Your task to perform on an android device: Clear all items from cart on bestbuy. Image 0: 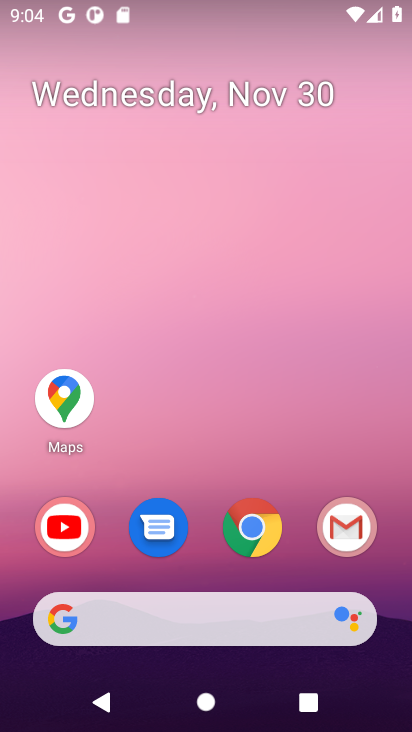
Step 0: click (255, 525)
Your task to perform on an android device: Clear all items from cart on bestbuy. Image 1: 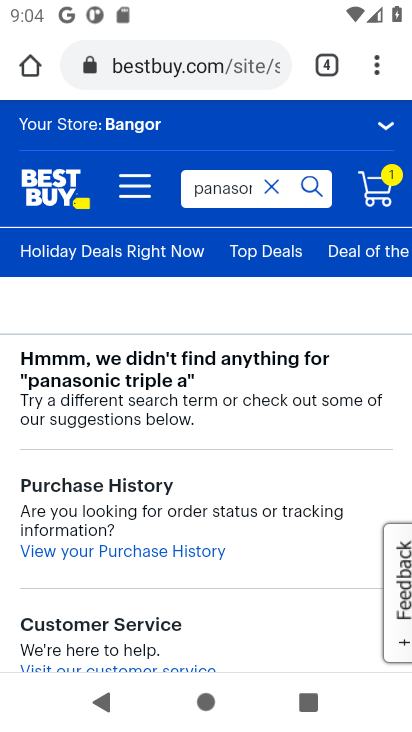
Step 1: click (381, 197)
Your task to perform on an android device: Clear all items from cart on bestbuy. Image 2: 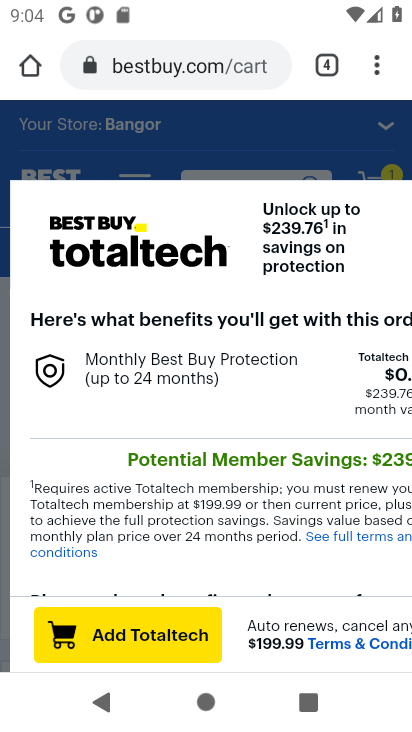
Step 2: click (251, 130)
Your task to perform on an android device: Clear all items from cart on bestbuy. Image 3: 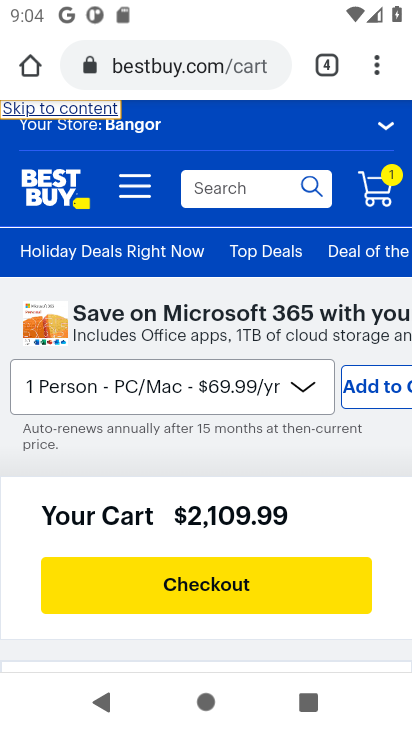
Step 3: drag from (347, 470) to (390, 48)
Your task to perform on an android device: Clear all items from cart on bestbuy. Image 4: 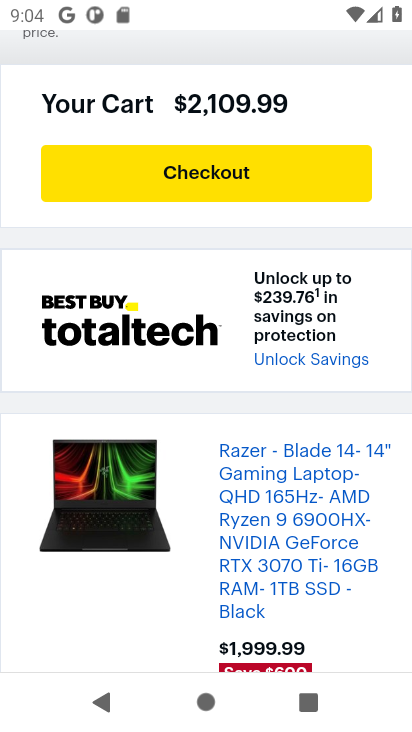
Step 4: drag from (326, 607) to (311, 94)
Your task to perform on an android device: Clear all items from cart on bestbuy. Image 5: 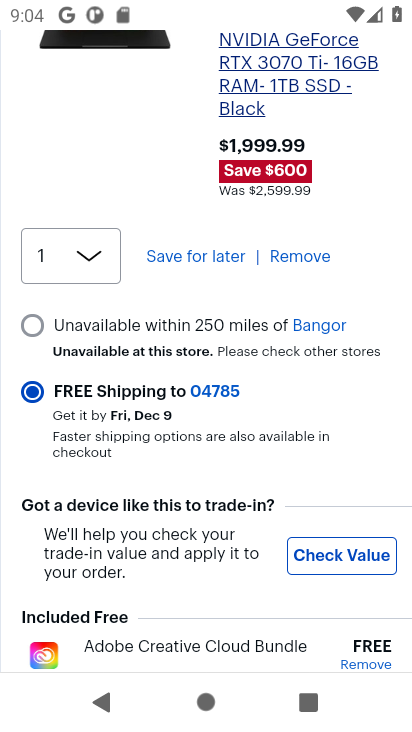
Step 5: click (317, 255)
Your task to perform on an android device: Clear all items from cart on bestbuy. Image 6: 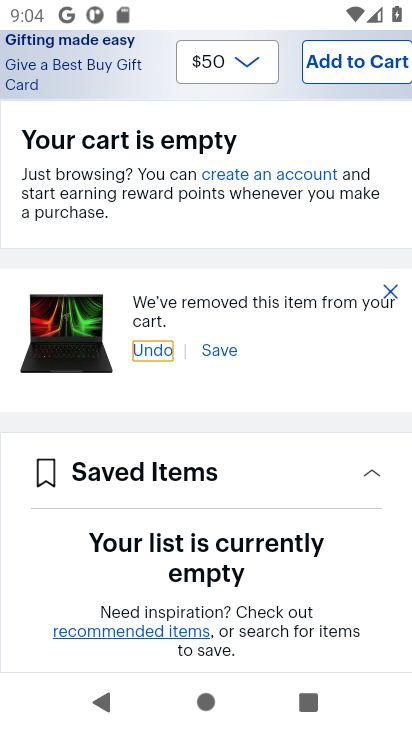
Step 6: click (390, 284)
Your task to perform on an android device: Clear all items from cart on bestbuy. Image 7: 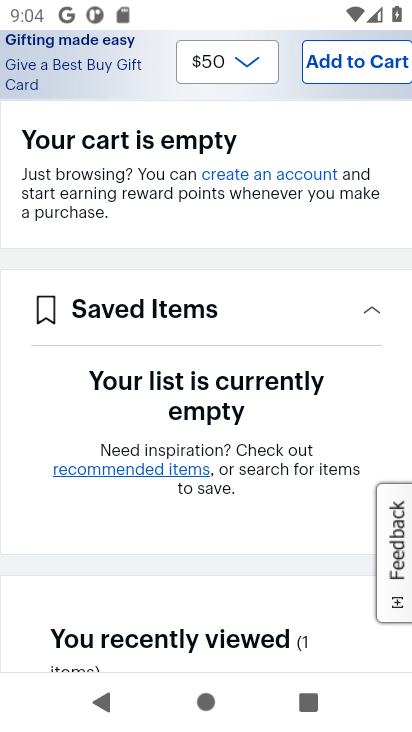
Step 7: task complete